Your task to perform on an android device: What's the weather going to be this weekend? Image 0: 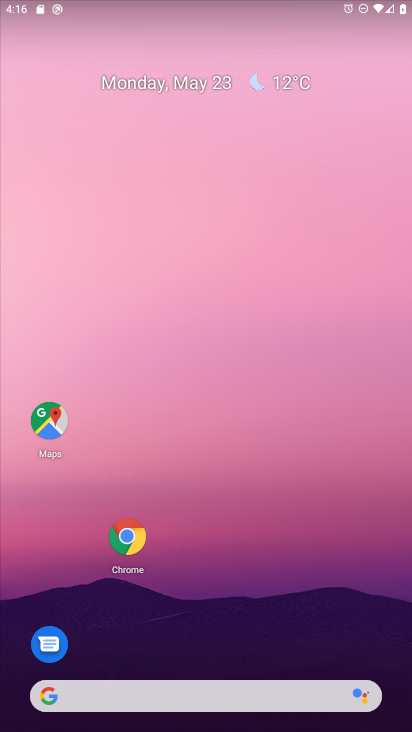
Step 0: click (297, 77)
Your task to perform on an android device: What's the weather going to be this weekend? Image 1: 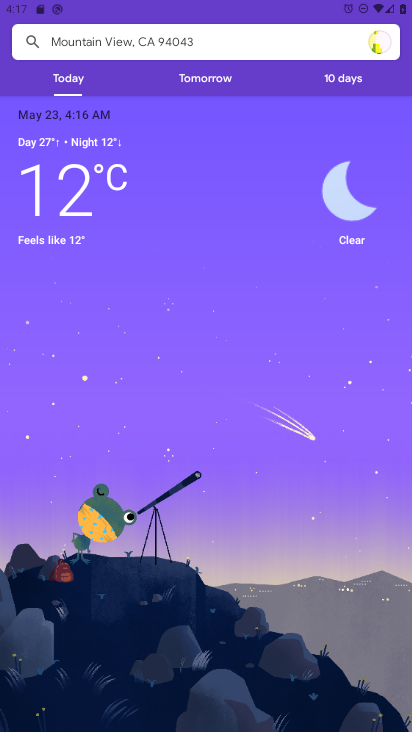
Step 1: click (334, 80)
Your task to perform on an android device: What's the weather going to be this weekend? Image 2: 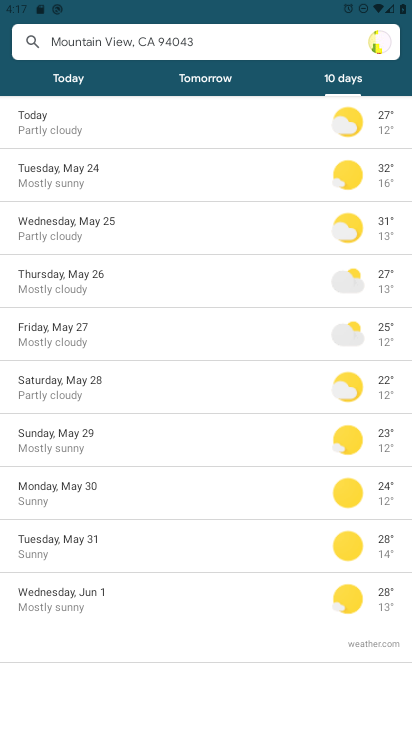
Step 2: task complete